Your task to perform on an android device: add a contact in the contacts app Image 0: 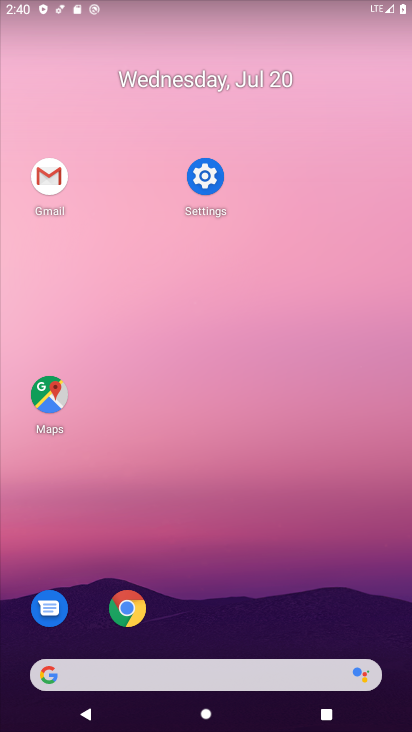
Step 0: drag from (208, 600) to (251, 127)
Your task to perform on an android device: add a contact in the contacts app Image 1: 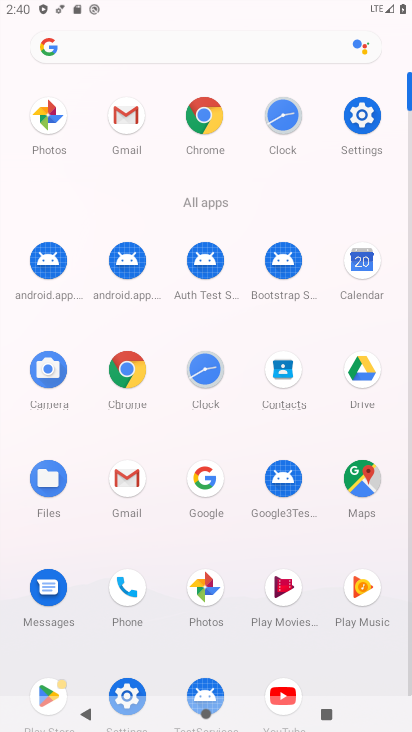
Step 1: click (291, 389)
Your task to perform on an android device: add a contact in the contacts app Image 2: 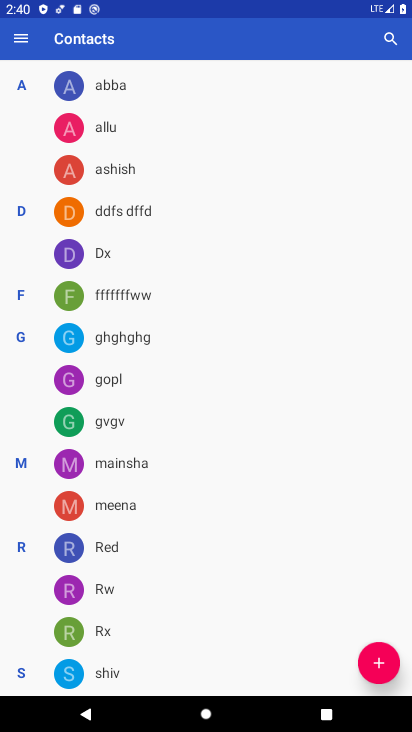
Step 2: click (384, 656)
Your task to perform on an android device: add a contact in the contacts app Image 3: 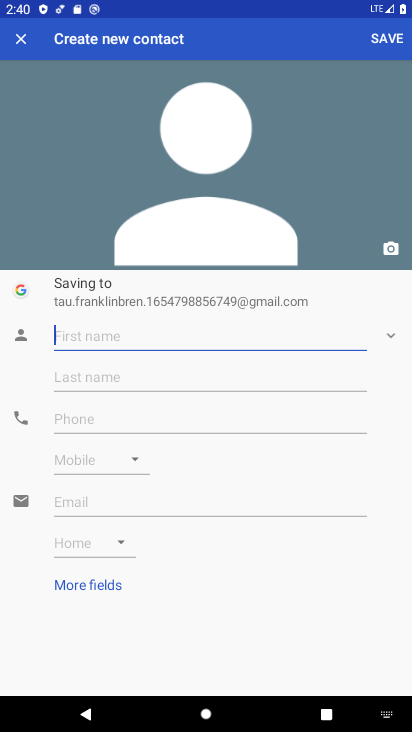
Step 3: type "dd"
Your task to perform on an android device: add a contact in the contacts app Image 4: 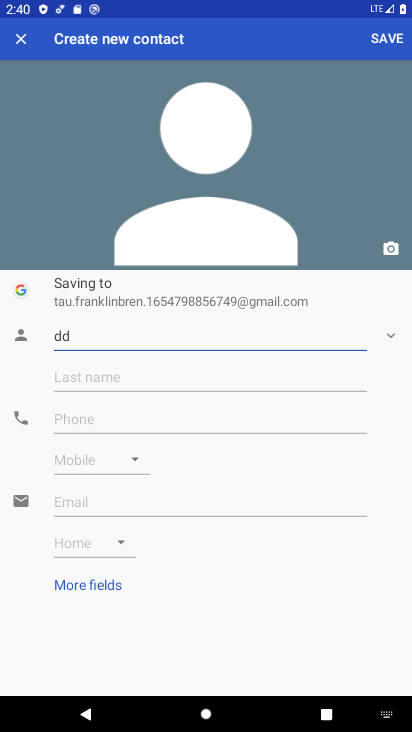
Step 4: click (161, 428)
Your task to perform on an android device: add a contact in the contacts app Image 5: 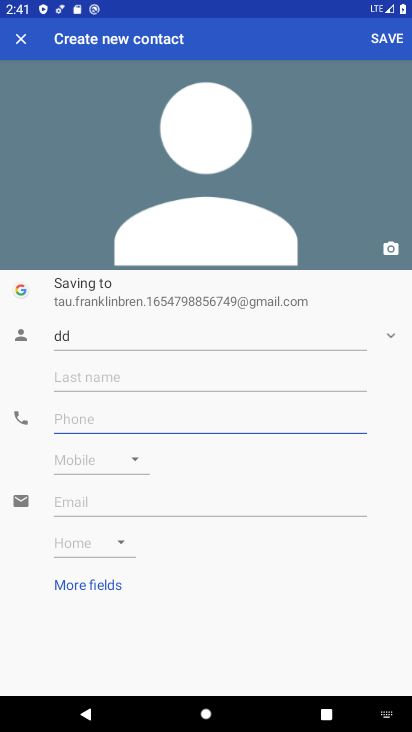
Step 5: type "4455667890"
Your task to perform on an android device: add a contact in the contacts app Image 6: 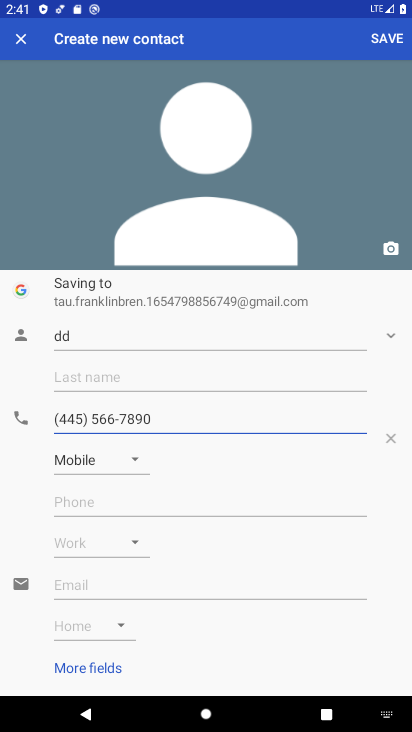
Step 6: click (384, 43)
Your task to perform on an android device: add a contact in the contacts app Image 7: 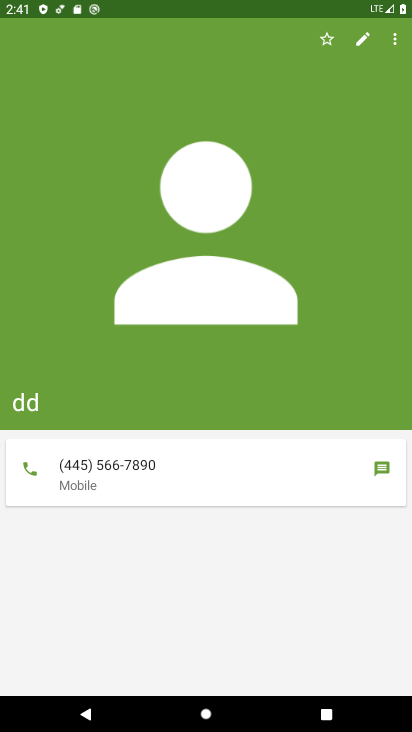
Step 7: task complete